Your task to perform on an android device: Go to Reddit.com Image 0: 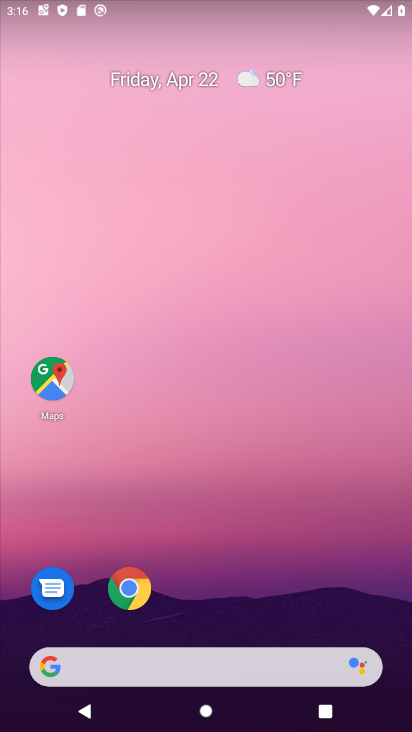
Step 0: drag from (346, 585) to (345, 150)
Your task to perform on an android device: Go to Reddit.com Image 1: 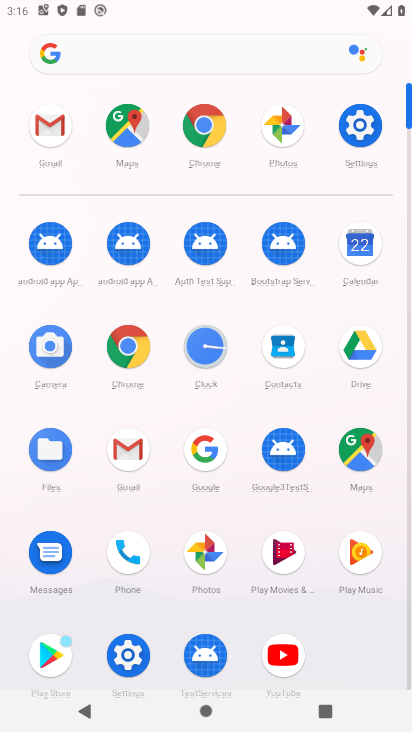
Step 1: click (205, 128)
Your task to perform on an android device: Go to Reddit.com Image 2: 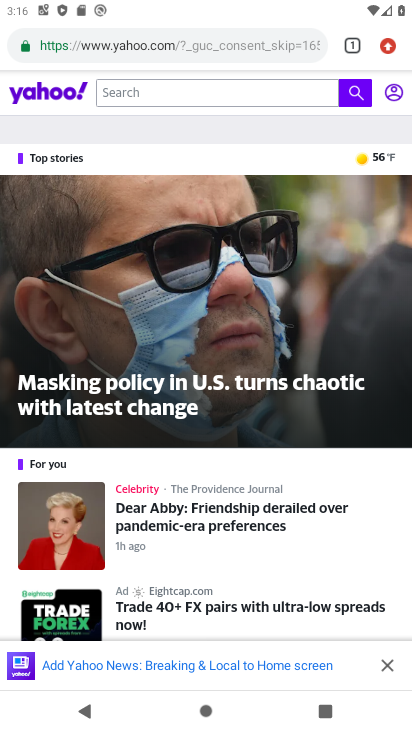
Step 2: click (265, 44)
Your task to perform on an android device: Go to Reddit.com Image 3: 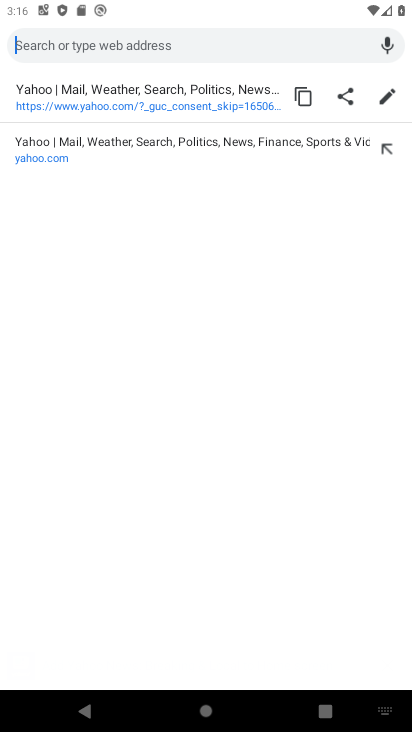
Step 3: type "Reddit.com"
Your task to perform on an android device: Go to Reddit.com Image 4: 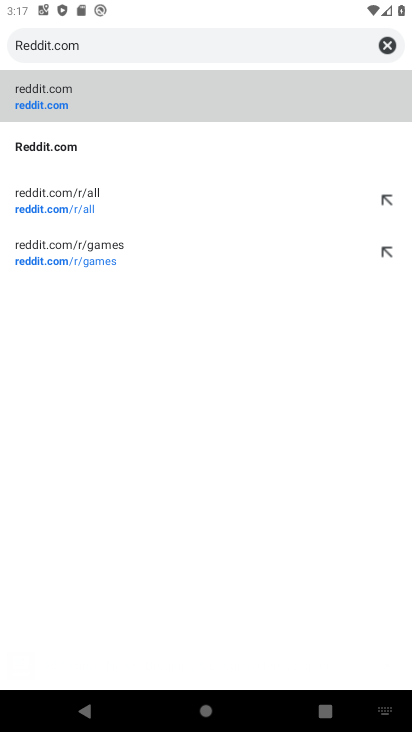
Step 4: click (77, 147)
Your task to perform on an android device: Go to Reddit.com Image 5: 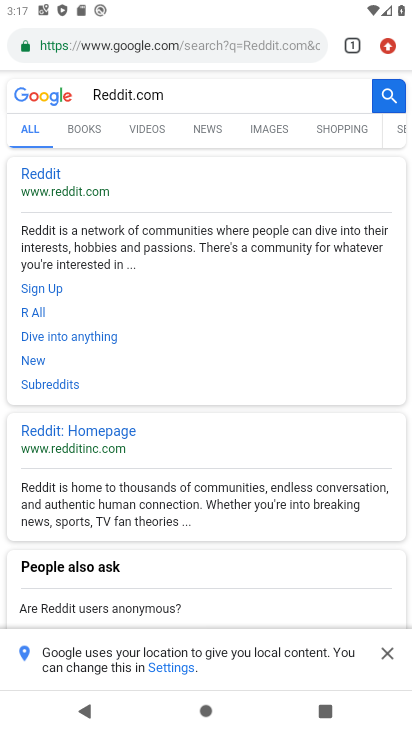
Step 5: task complete